Your task to perform on an android device: turn vacation reply on in the gmail app Image 0: 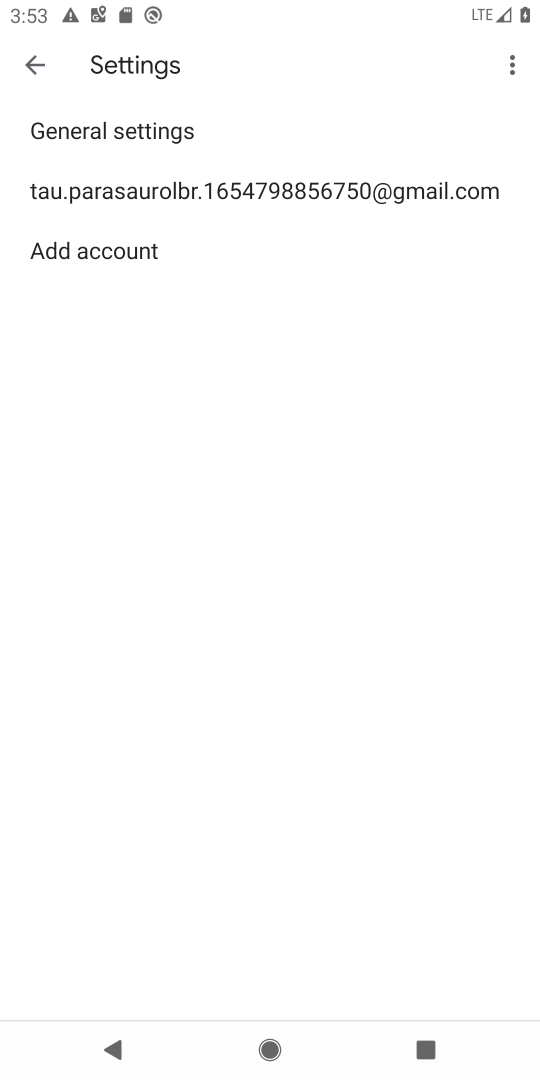
Step 0: press back button
Your task to perform on an android device: turn vacation reply on in the gmail app Image 1: 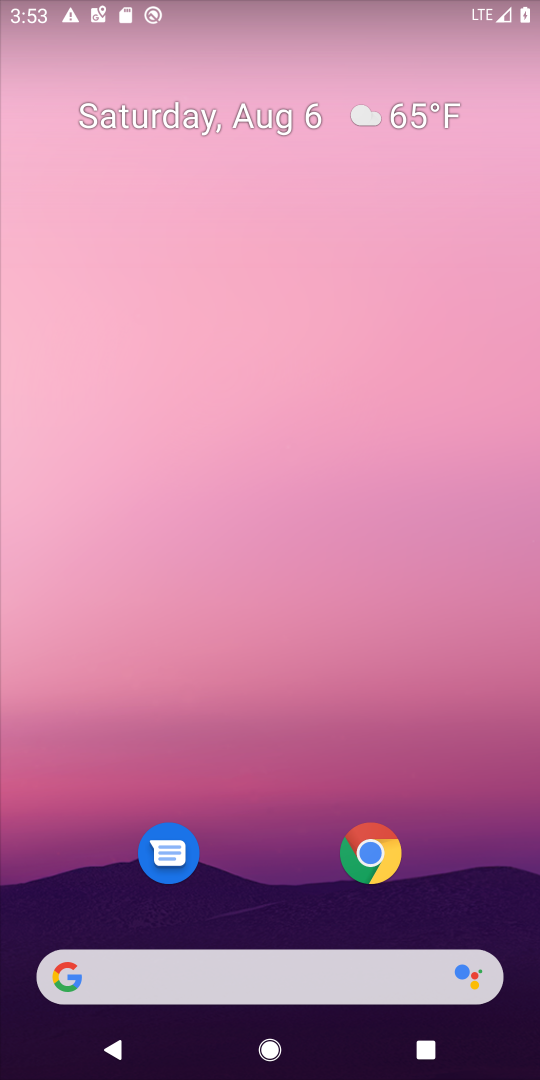
Step 1: drag from (281, 804) to (309, 129)
Your task to perform on an android device: turn vacation reply on in the gmail app Image 2: 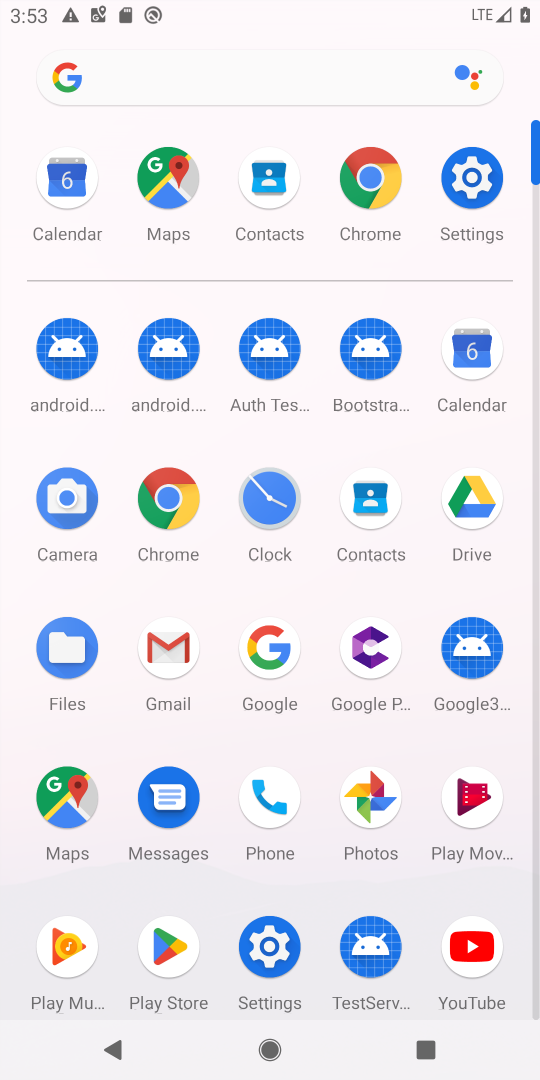
Step 2: click (159, 638)
Your task to perform on an android device: turn vacation reply on in the gmail app Image 3: 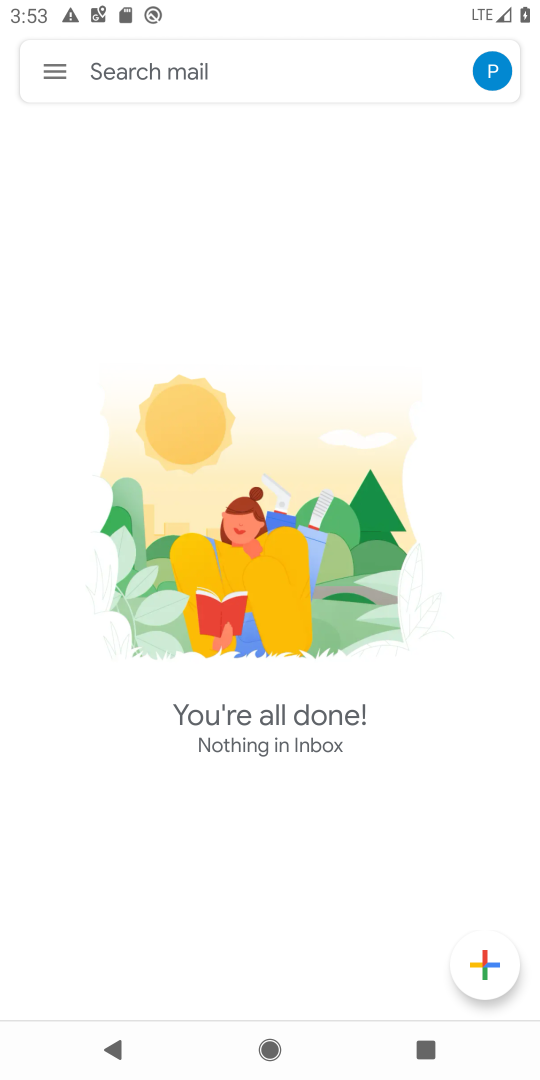
Step 3: click (66, 68)
Your task to perform on an android device: turn vacation reply on in the gmail app Image 4: 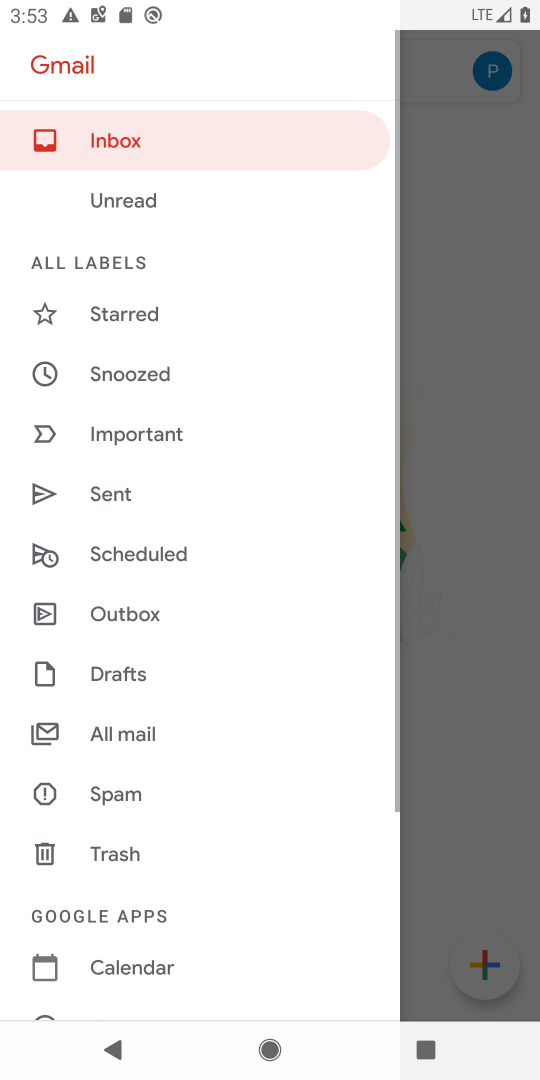
Step 4: drag from (151, 972) to (197, 84)
Your task to perform on an android device: turn vacation reply on in the gmail app Image 5: 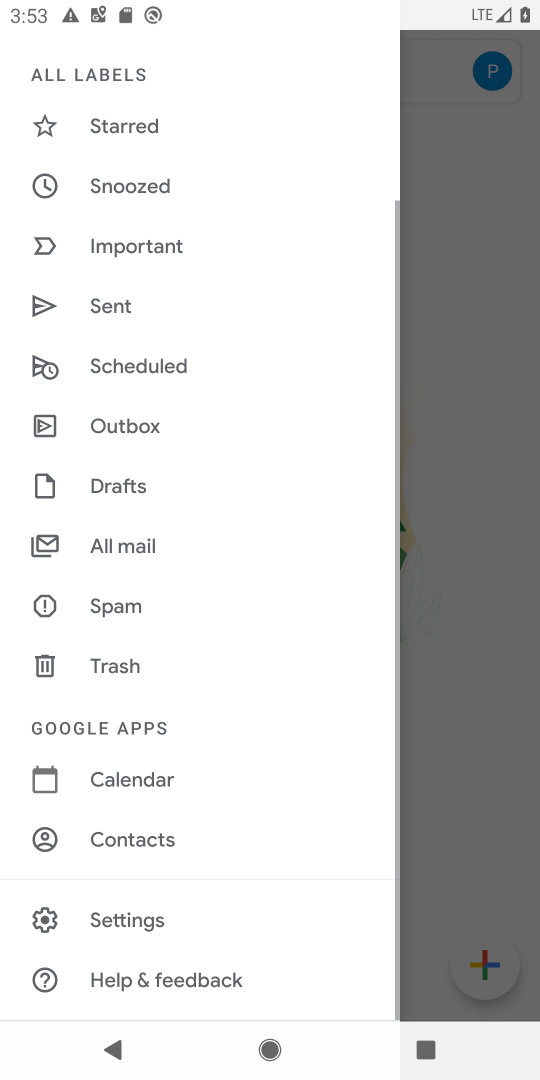
Step 5: click (151, 904)
Your task to perform on an android device: turn vacation reply on in the gmail app Image 6: 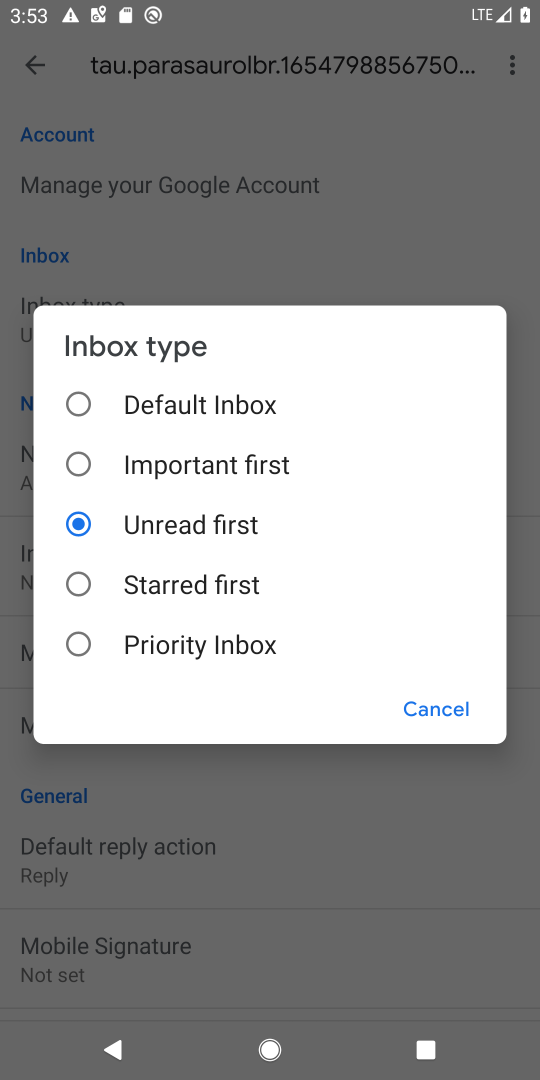
Step 6: click (422, 709)
Your task to perform on an android device: turn vacation reply on in the gmail app Image 7: 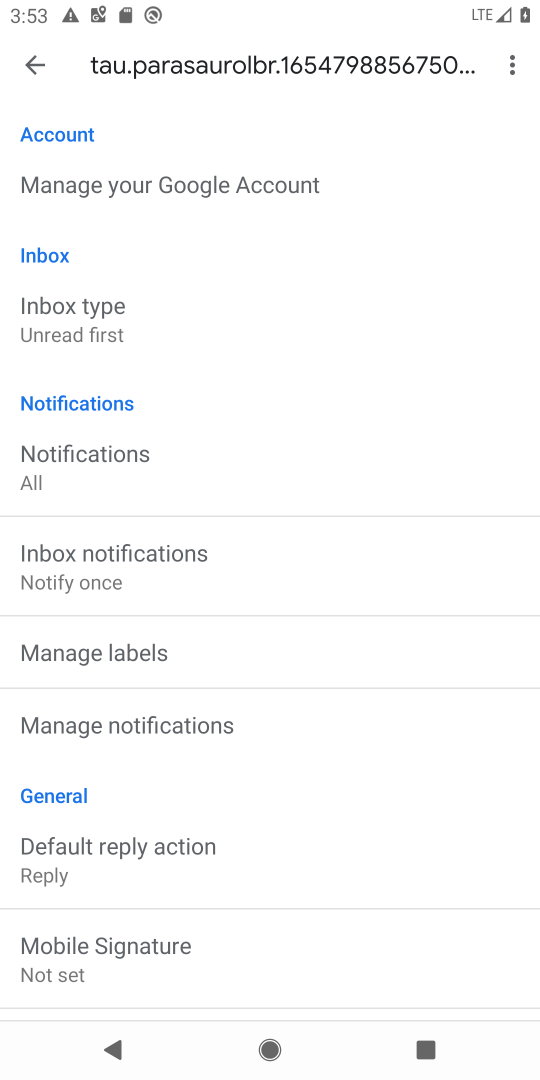
Step 7: drag from (141, 907) to (258, 146)
Your task to perform on an android device: turn vacation reply on in the gmail app Image 8: 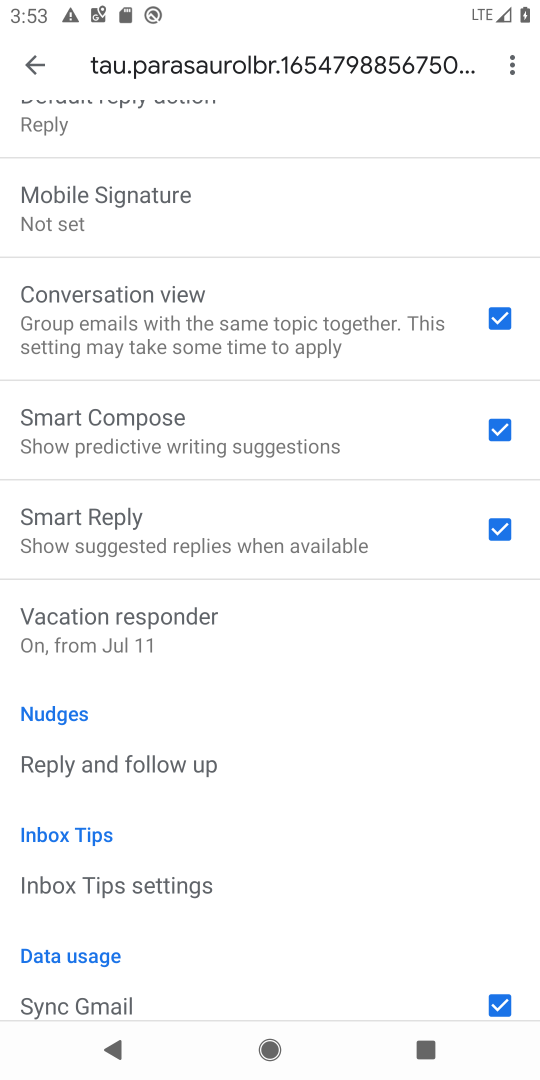
Step 8: click (99, 630)
Your task to perform on an android device: turn vacation reply on in the gmail app Image 9: 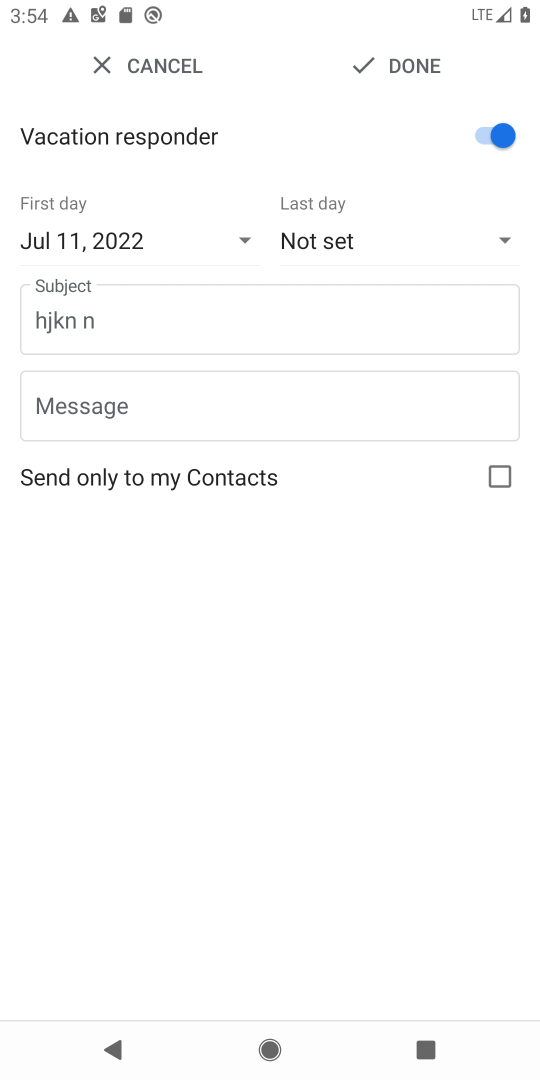
Step 9: task complete